Your task to perform on an android device: Search for pizza restaurants on Maps Image 0: 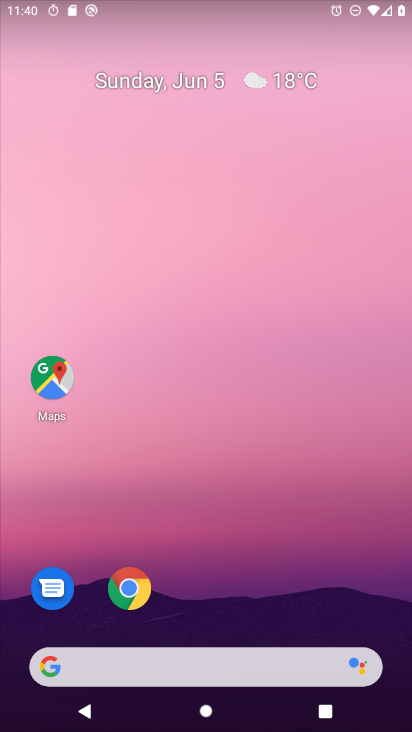
Step 0: drag from (301, 500) to (302, 276)
Your task to perform on an android device: Search for pizza restaurants on Maps Image 1: 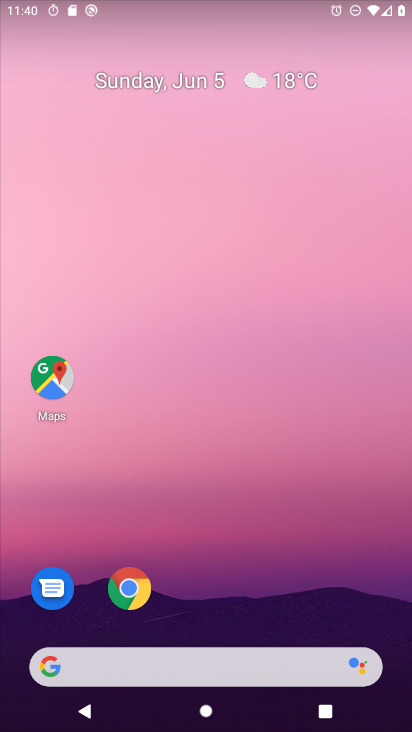
Step 1: drag from (293, 575) to (305, 188)
Your task to perform on an android device: Search for pizza restaurants on Maps Image 2: 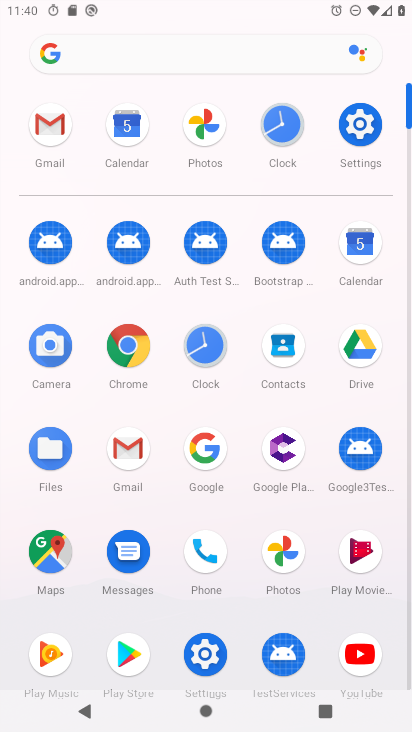
Step 2: click (61, 557)
Your task to perform on an android device: Search for pizza restaurants on Maps Image 3: 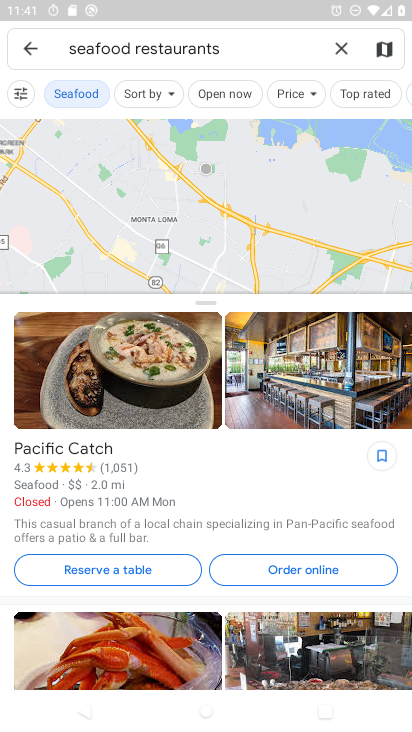
Step 3: click (340, 55)
Your task to perform on an android device: Search for pizza restaurants on Maps Image 4: 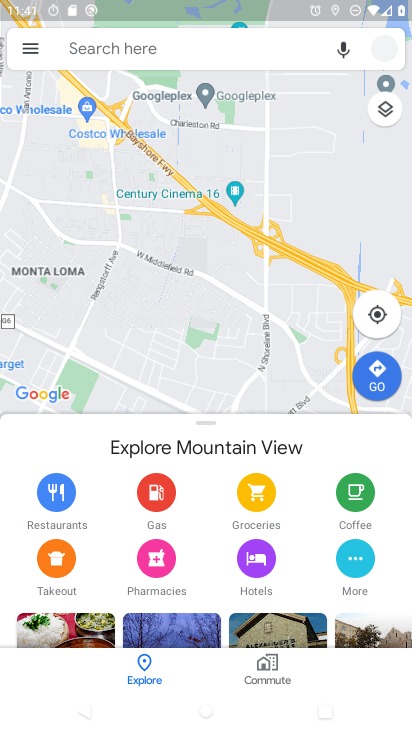
Step 4: click (179, 54)
Your task to perform on an android device: Search for pizza restaurants on Maps Image 5: 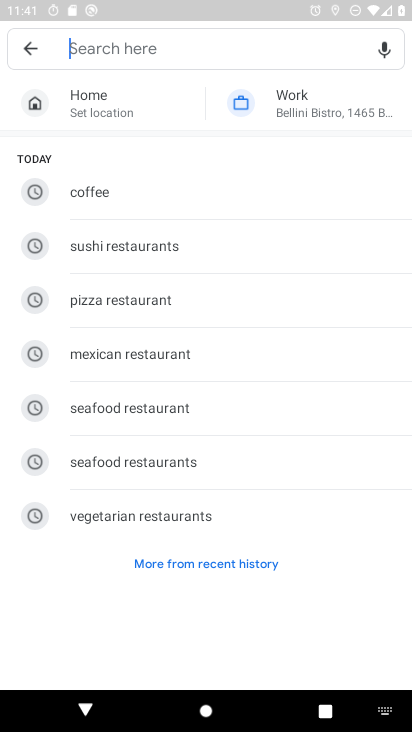
Step 5: type "pizzaa restaurants"
Your task to perform on an android device: Search for pizza restaurants on Maps Image 6: 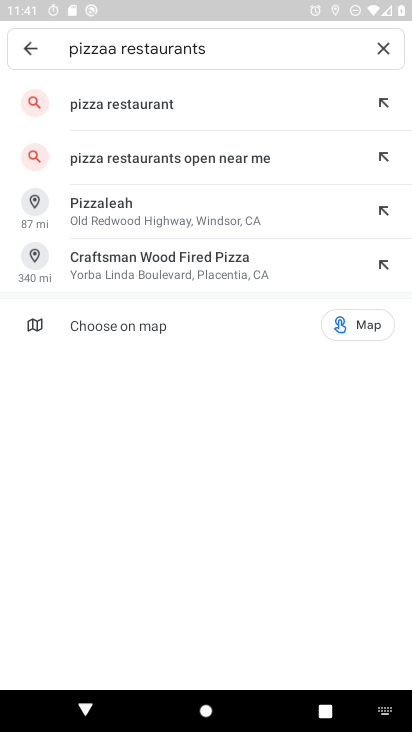
Step 6: click (293, 114)
Your task to perform on an android device: Search for pizza restaurants on Maps Image 7: 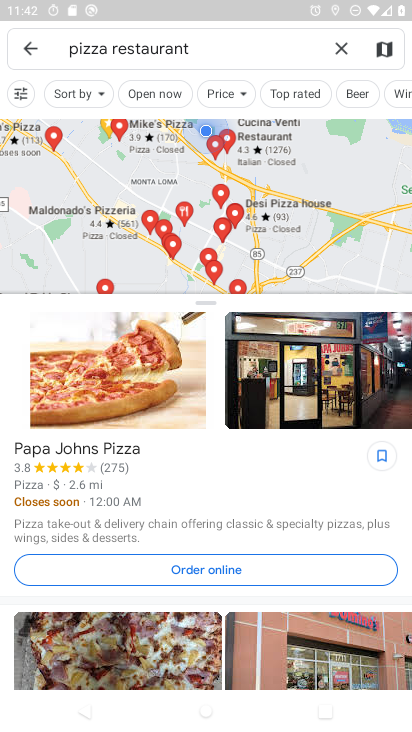
Step 7: task complete